Your task to perform on an android device: Open Google Maps and go to "Timeline" Image 0: 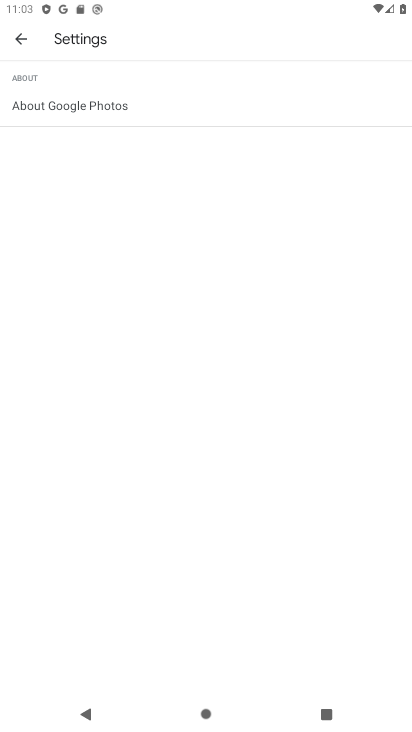
Step 0: press home button
Your task to perform on an android device: Open Google Maps and go to "Timeline" Image 1: 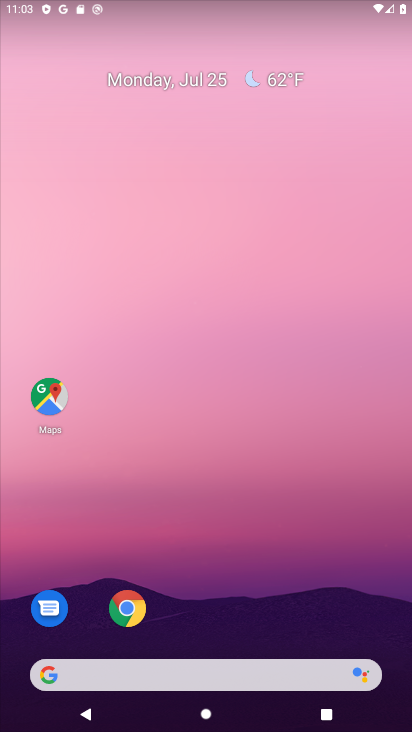
Step 1: drag from (199, 560) to (213, 243)
Your task to perform on an android device: Open Google Maps and go to "Timeline" Image 2: 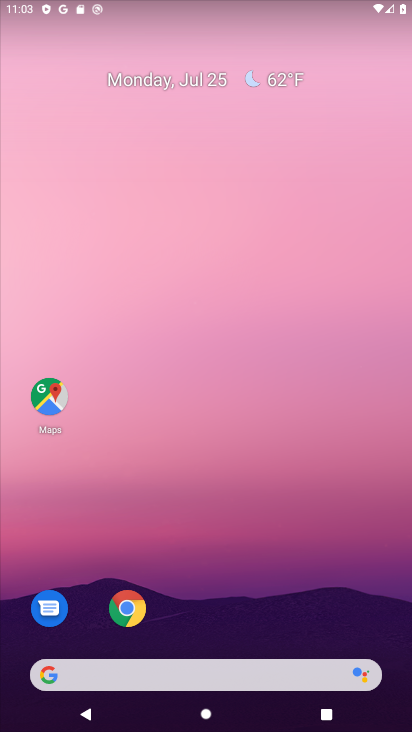
Step 2: click (52, 393)
Your task to perform on an android device: Open Google Maps and go to "Timeline" Image 3: 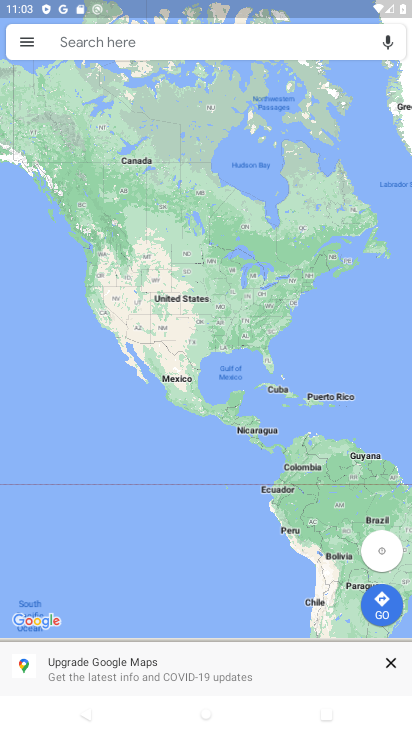
Step 3: click (27, 41)
Your task to perform on an android device: Open Google Maps and go to "Timeline" Image 4: 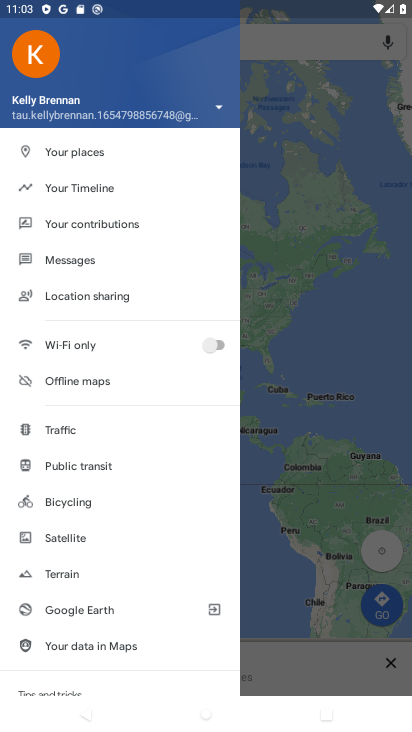
Step 4: click (90, 190)
Your task to perform on an android device: Open Google Maps and go to "Timeline" Image 5: 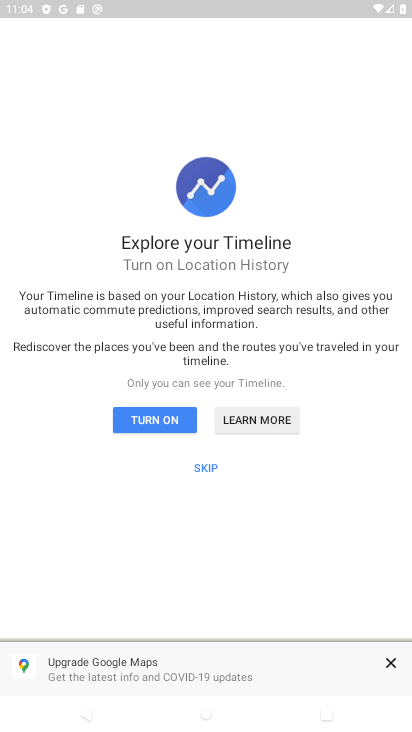
Step 5: click (205, 469)
Your task to perform on an android device: Open Google Maps and go to "Timeline" Image 6: 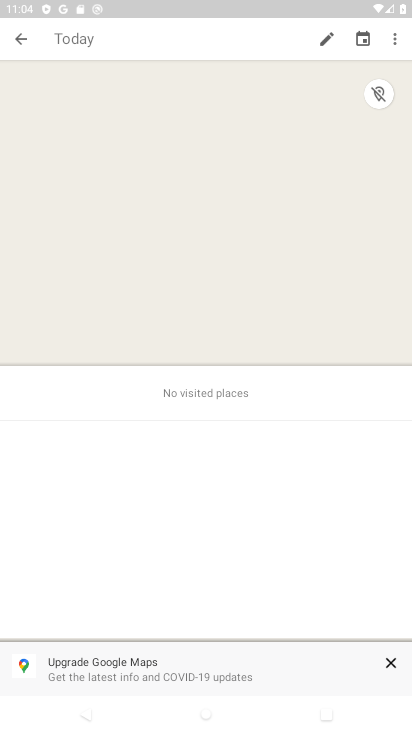
Step 6: task complete